Your task to perform on an android device: What is the news today? Image 0: 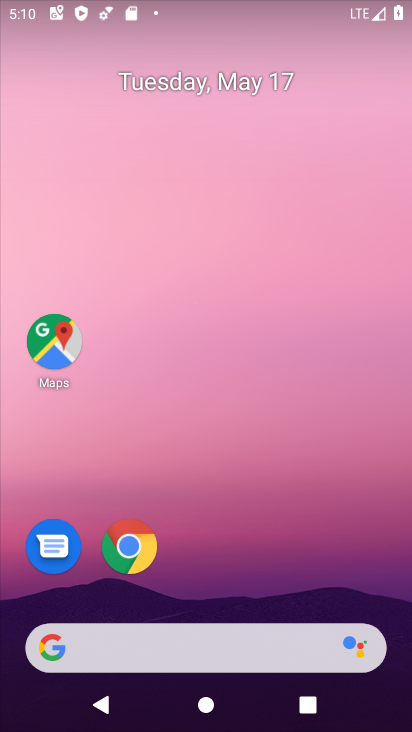
Step 0: drag from (231, 529) to (237, 52)
Your task to perform on an android device: What is the news today? Image 1: 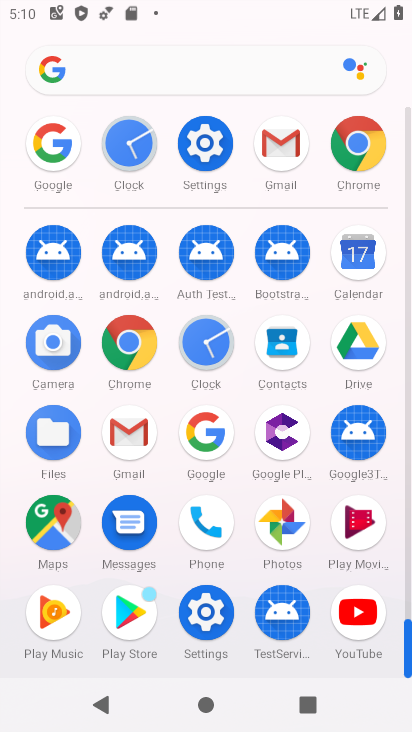
Step 1: click (206, 431)
Your task to perform on an android device: What is the news today? Image 2: 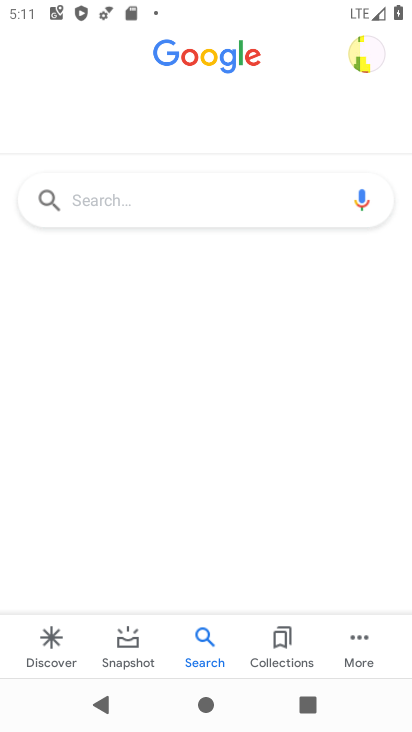
Step 2: click (130, 215)
Your task to perform on an android device: What is the news today? Image 3: 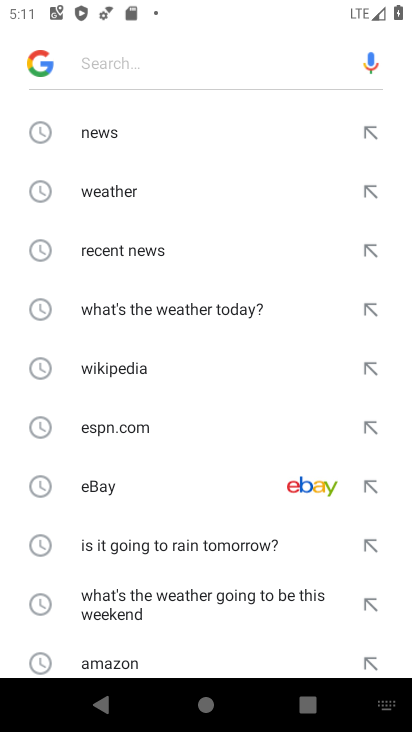
Step 3: click (109, 130)
Your task to perform on an android device: What is the news today? Image 4: 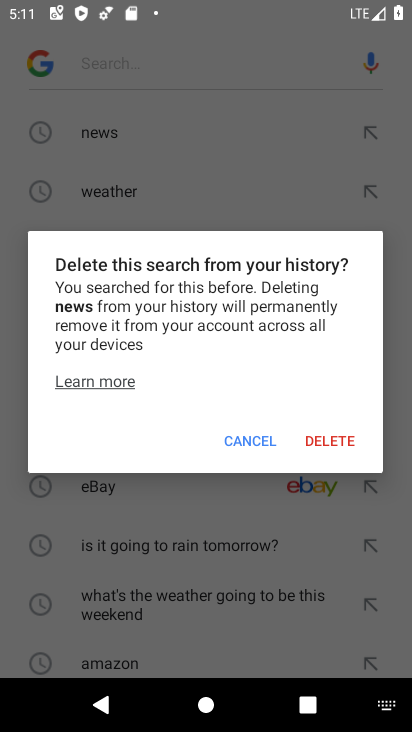
Step 4: click (249, 441)
Your task to perform on an android device: What is the news today? Image 5: 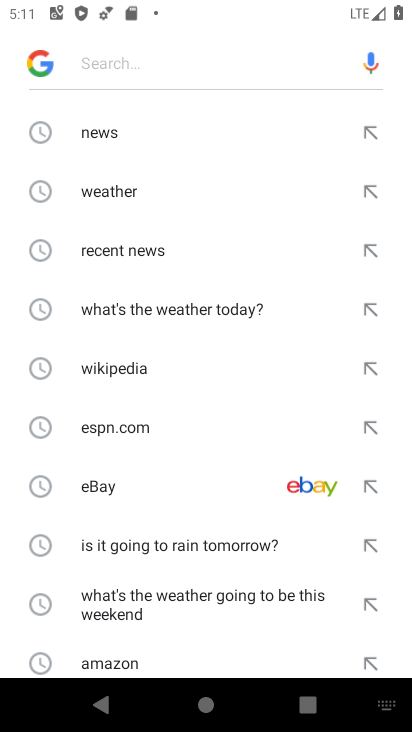
Step 5: click (89, 139)
Your task to perform on an android device: What is the news today? Image 6: 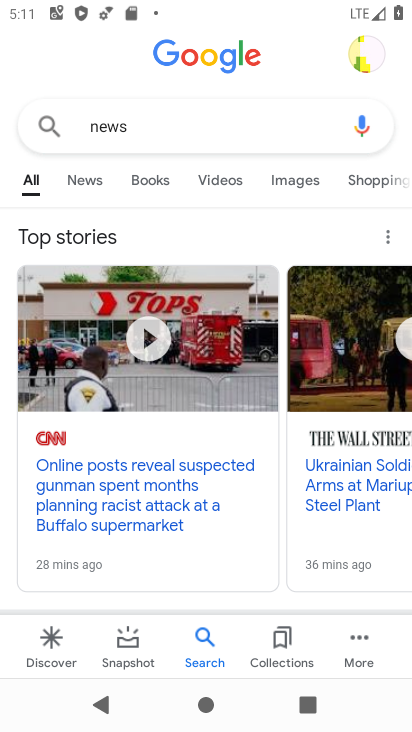
Step 6: task complete